Your task to perform on an android device: Show me productivity apps on the Play Store Image 0: 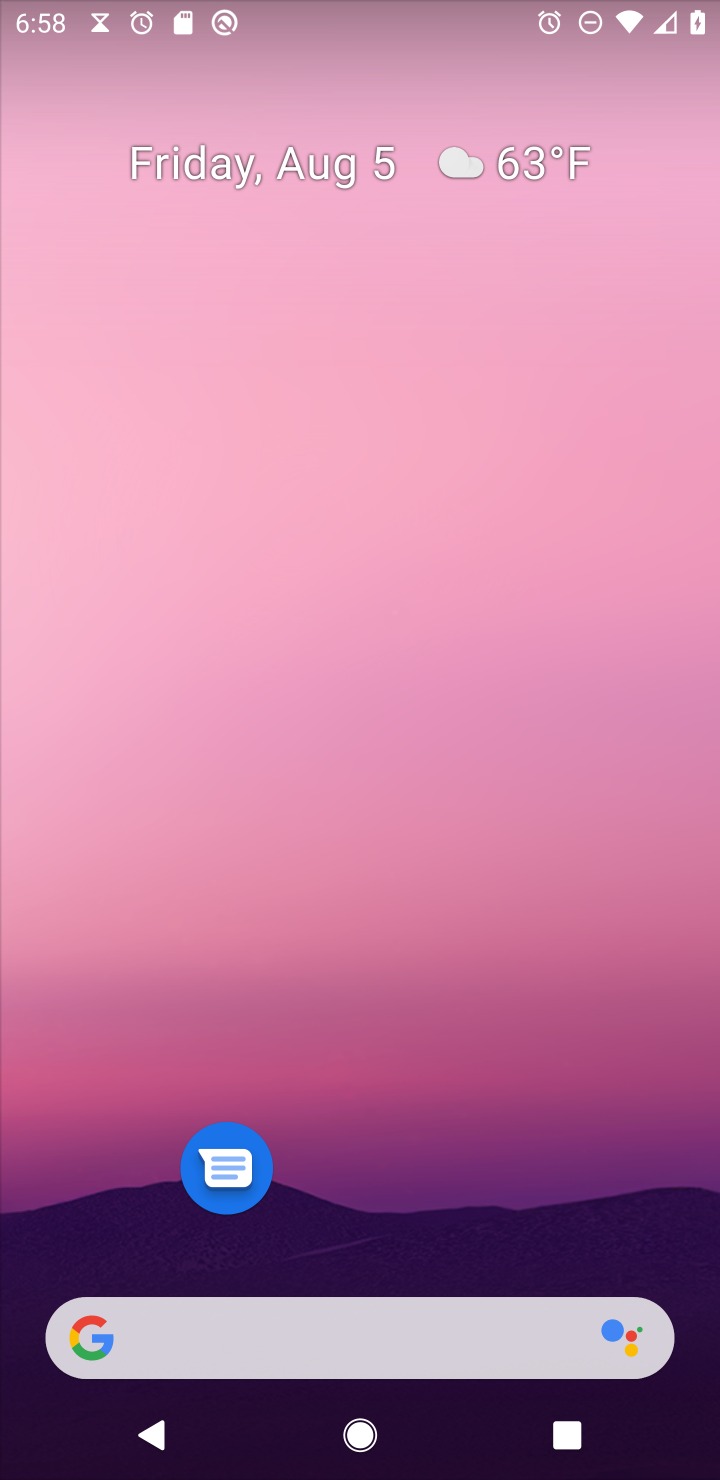
Step 0: drag from (426, 1192) to (453, 273)
Your task to perform on an android device: Show me productivity apps on the Play Store Image 1: 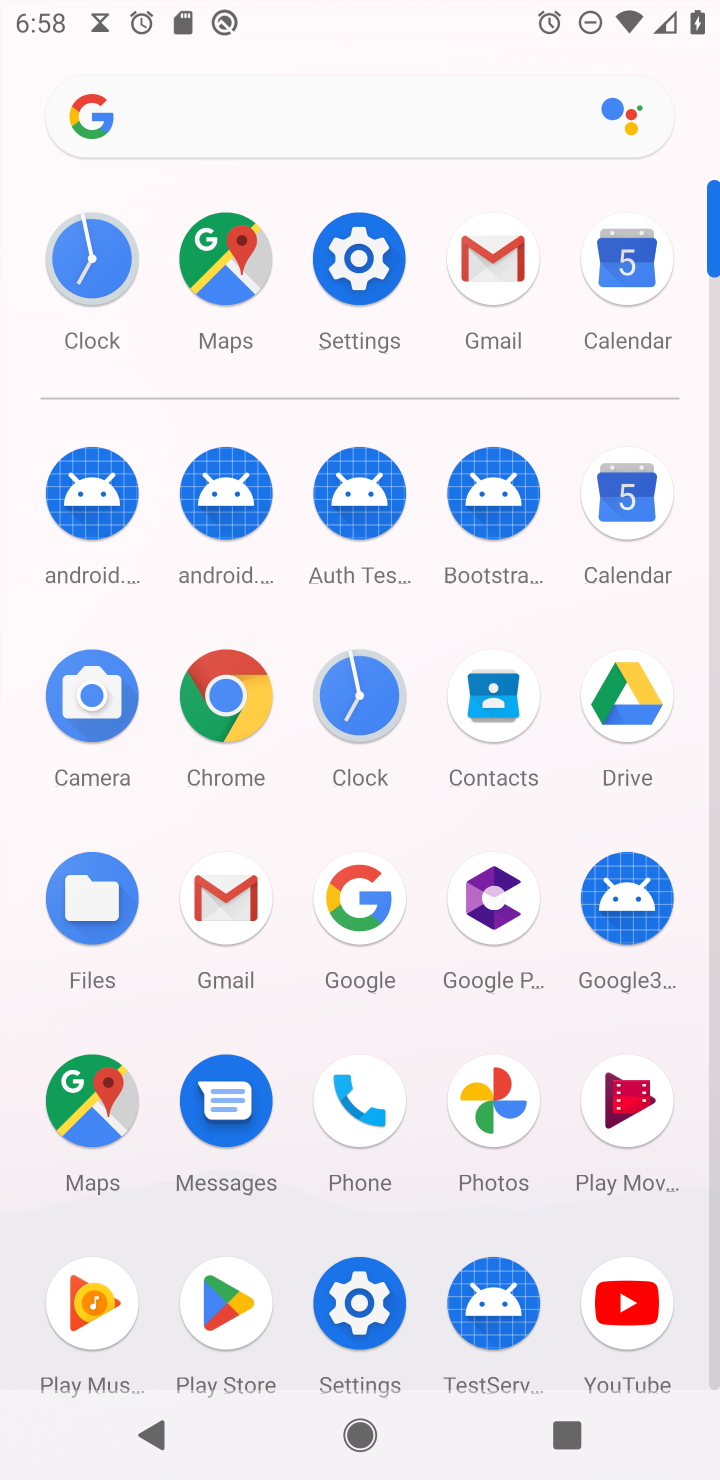
Step 1: click (208, 1327)
Your task to perform on an android device: Show me productivity apps on the Play Store Image 2: 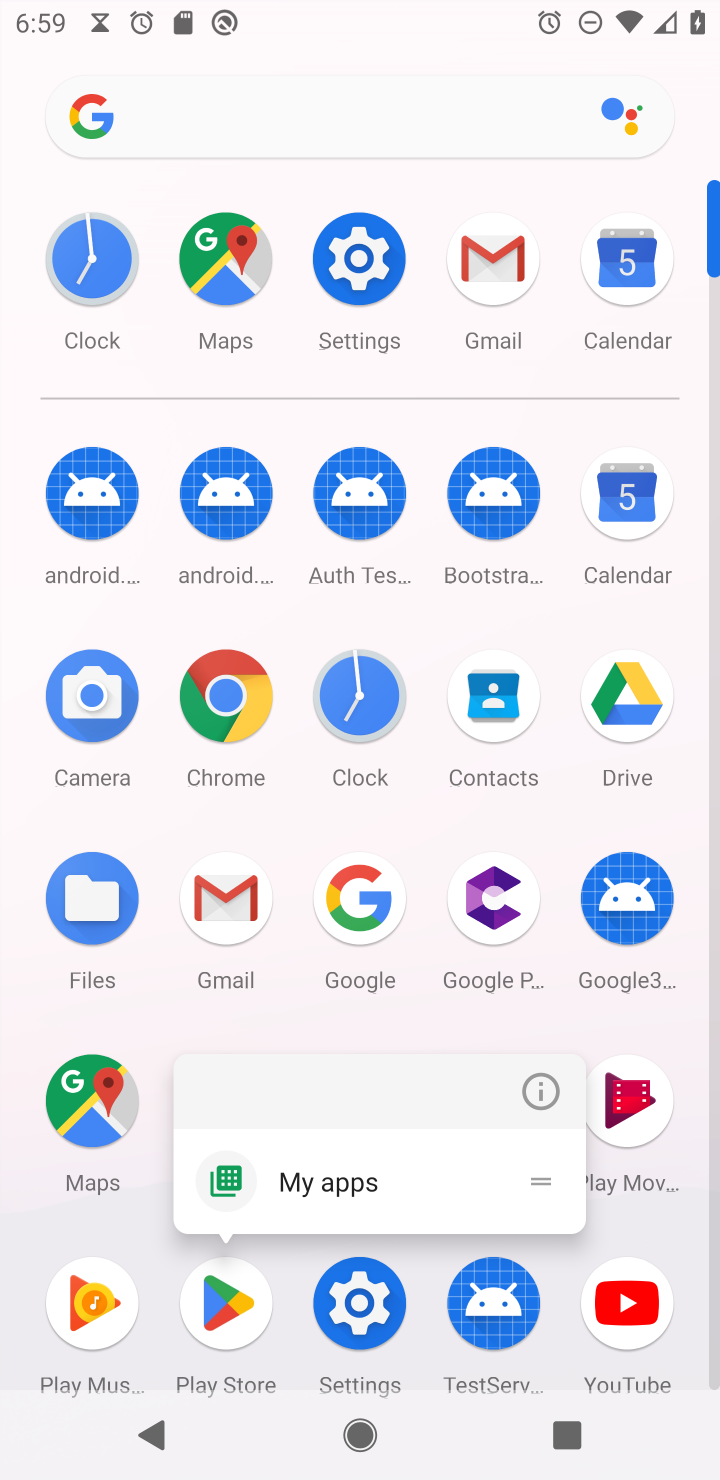
Step 2: click (229, 1330)
Your task to perform on an android device: Show me productivity apps on the Play Store Image 3: 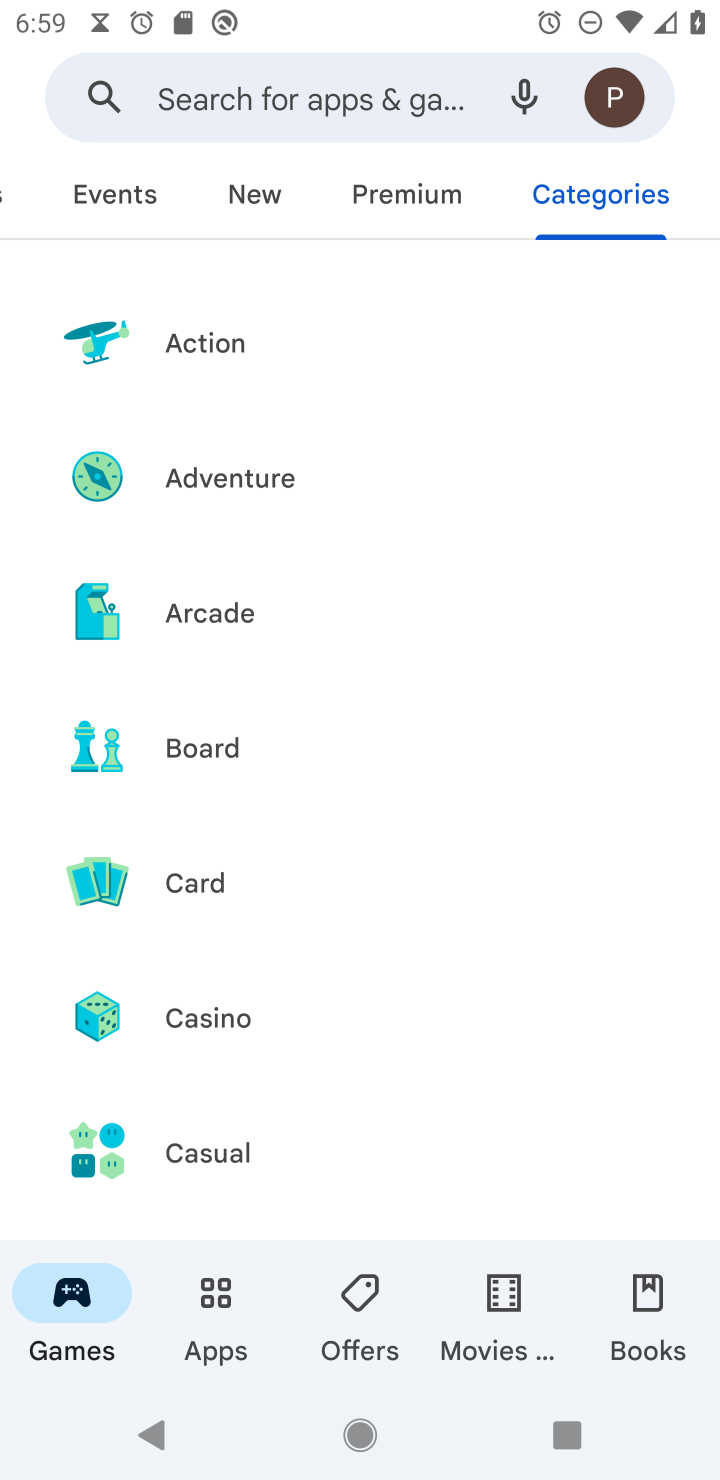
Step 3: click (224, 1304)
Your task to perform on an android device: Show me productivity apps on the Play Store Image 4: 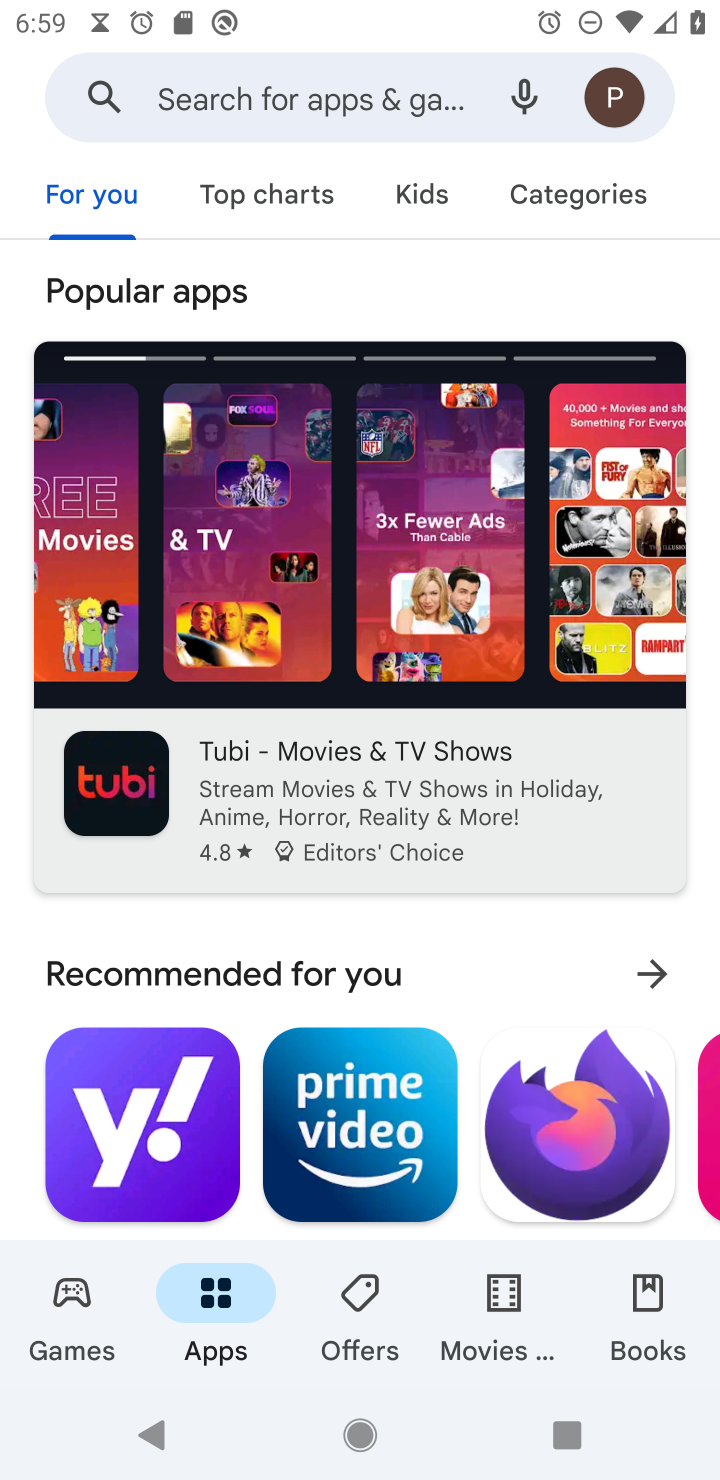
Step 4: click (589, 193)
Your task to perform on an android device: Show me productivity apps on the Play Store Image 5: 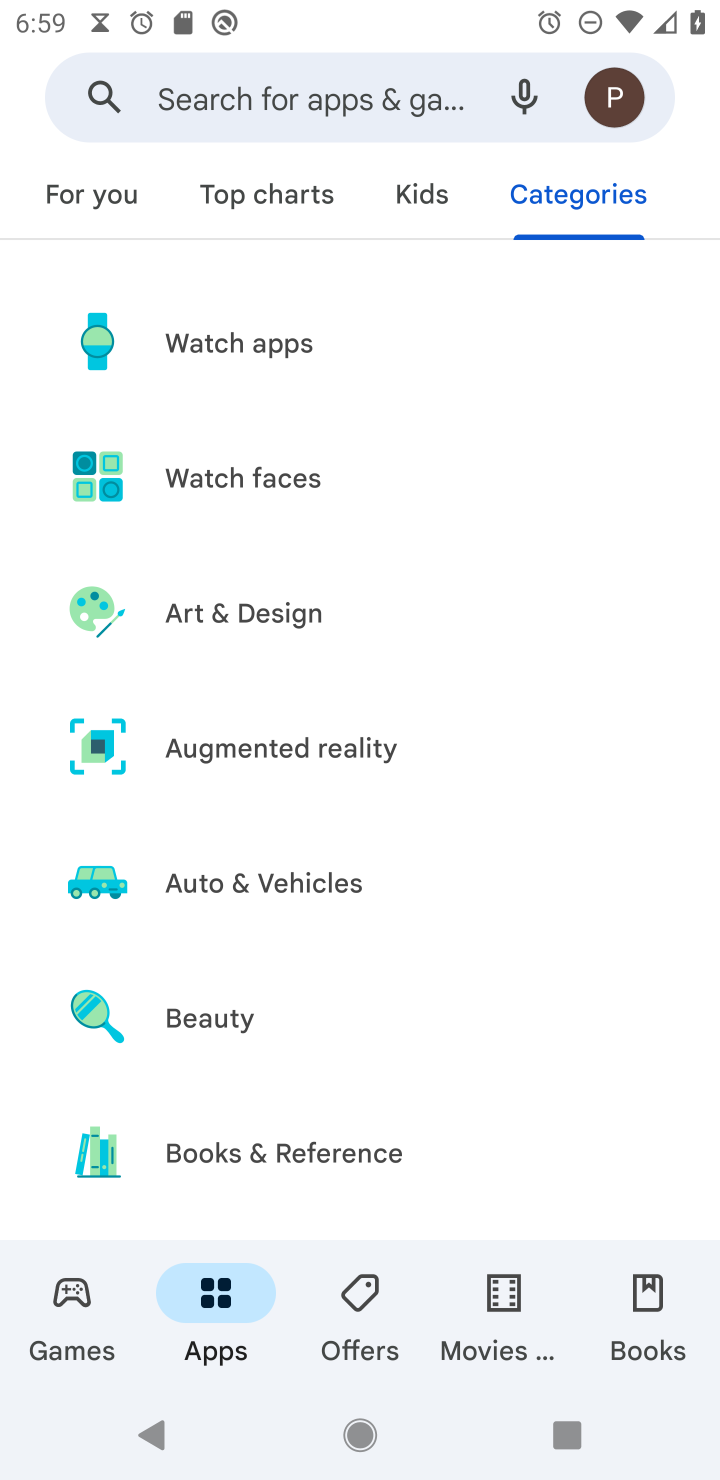
Step 5: drag from (495, 996) to (508, 2)
Your task to perform on an android device: Show me productivity apps on the Play Store Image 6: 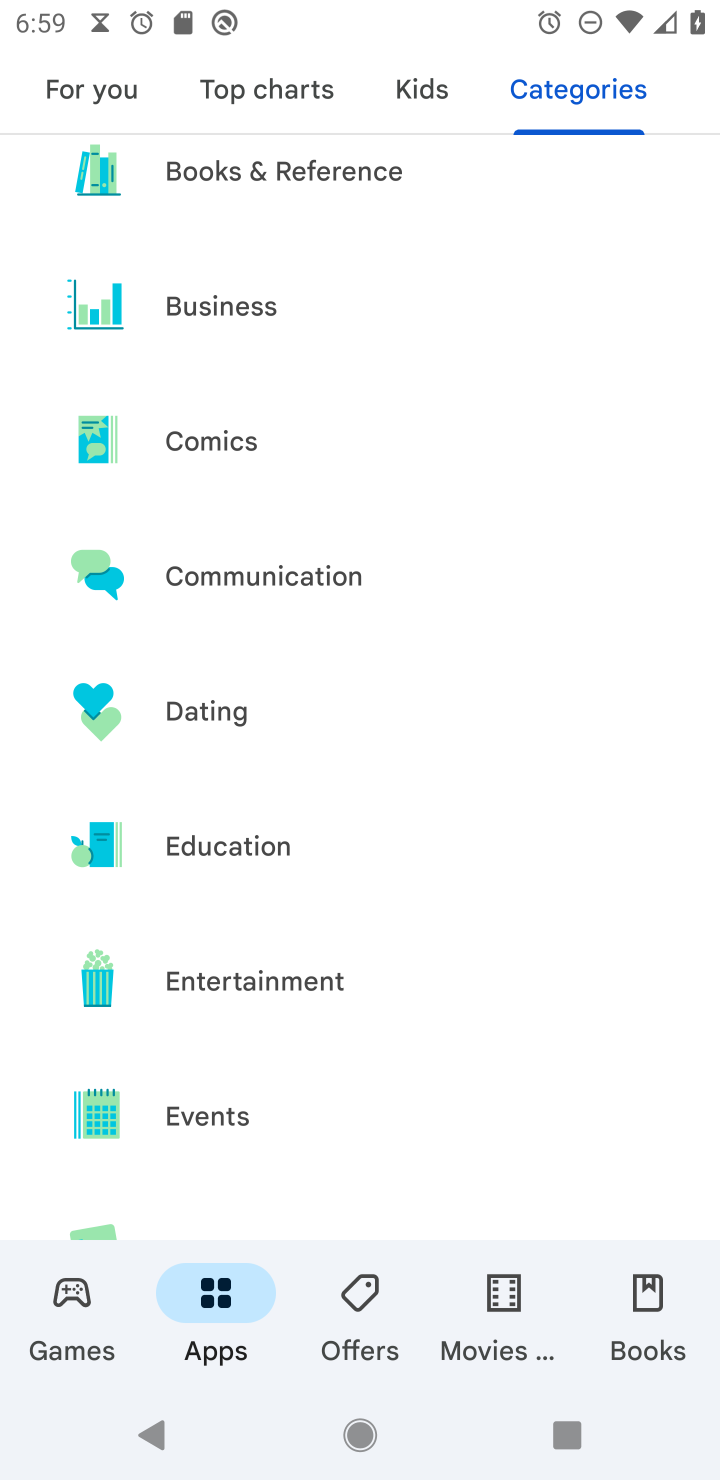
Step 6: drag from (497, 1055) to (604, 138)
Your task to perform on an android device: Show me productivity apps on the Play Store Image 7: 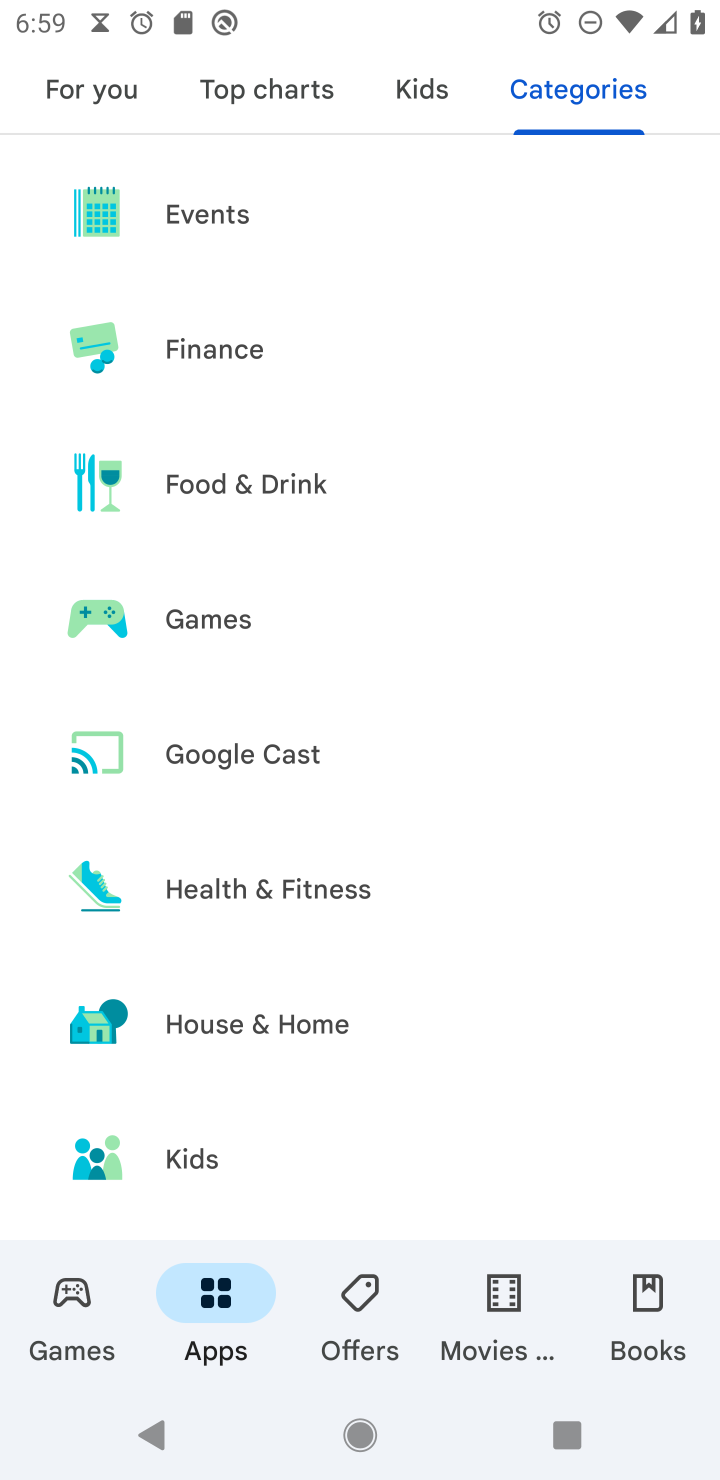
Step 7: drag from (518, 980) to (609, 101)
Your task to perform on an android device: Show me productivity apps on the Play Store Image 8: 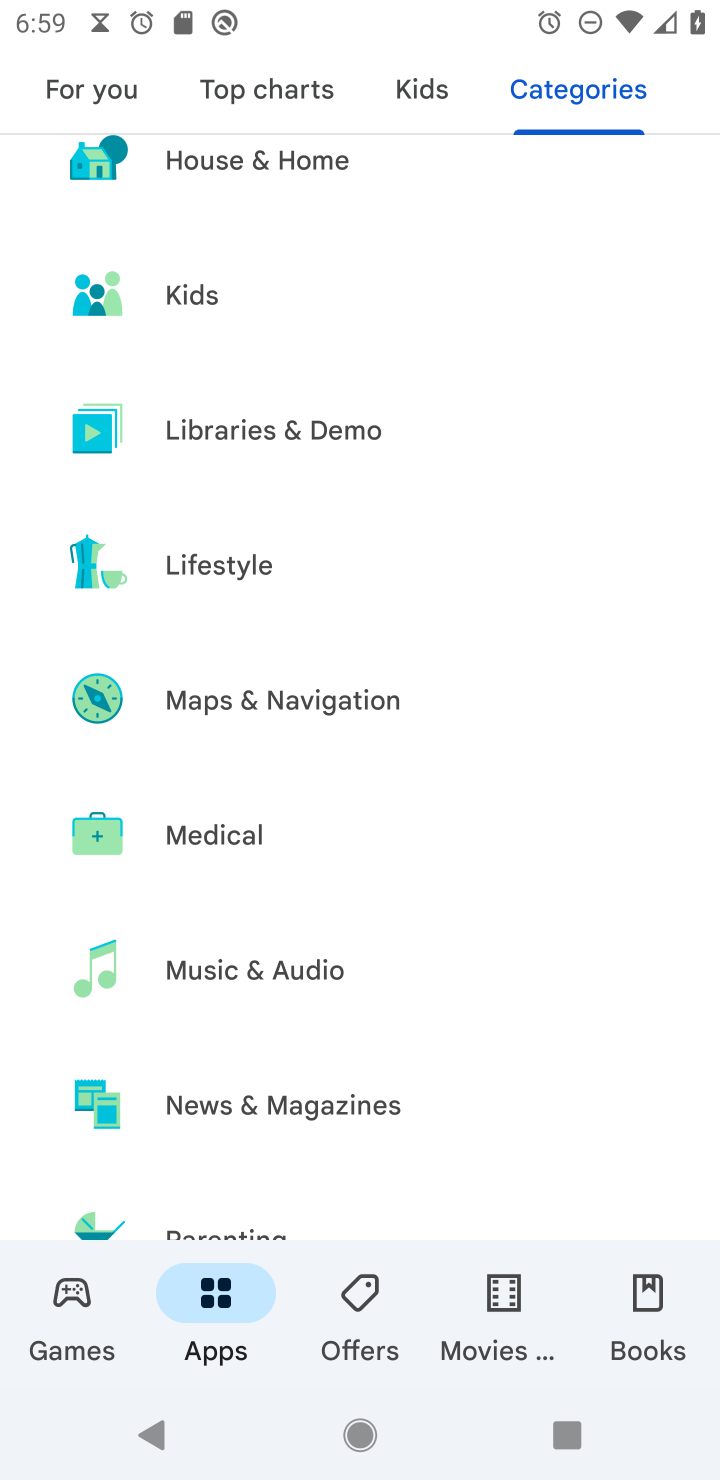
Step 8: drag from (511, 1046) to (706, 141)
Your task to perform on an android device: Show me productivity apps on the Play Store Image 9: 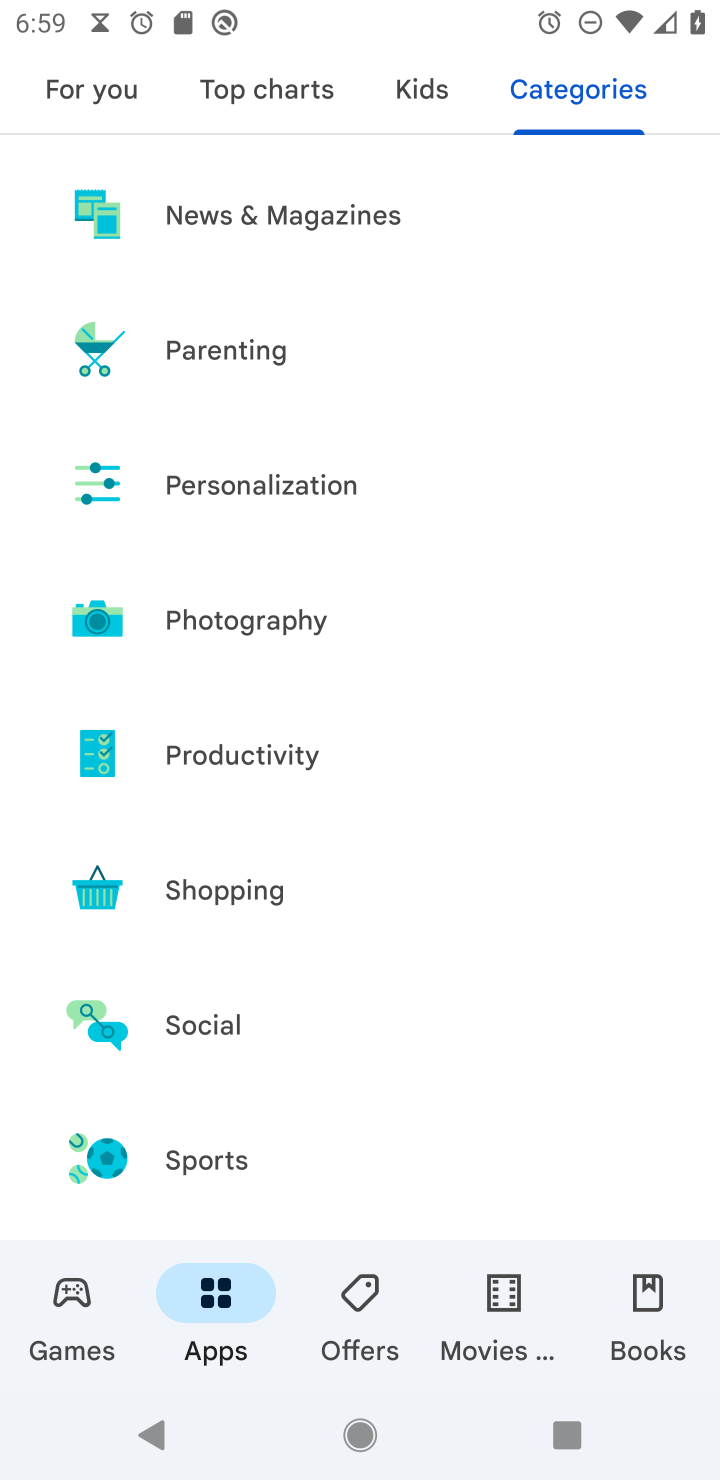
Step 9: click (247, 765)
Your task to perform on an android device: Show me productivity apps on the Play Store Image 10: 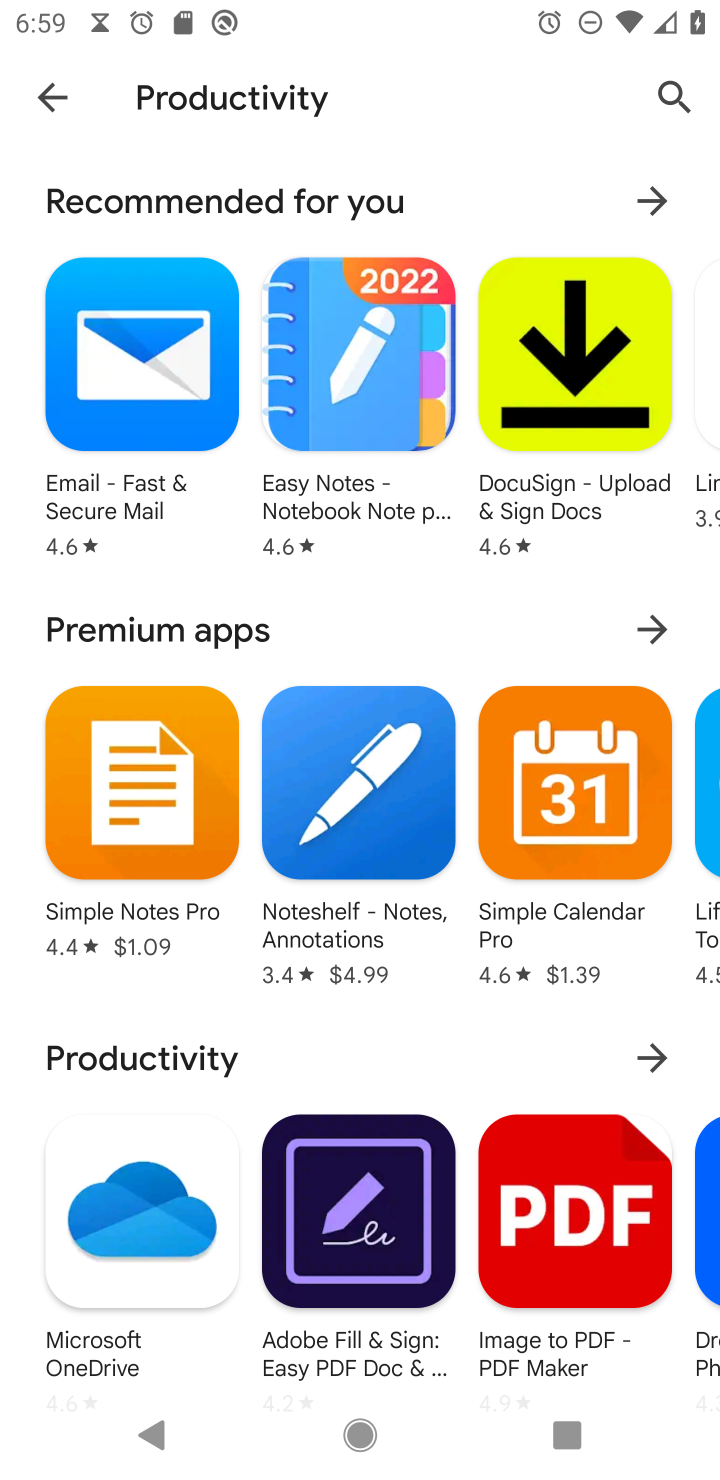
Step 10: task complete